Your task to perform on an android device: toggle data saver in the chrome app Image 0: 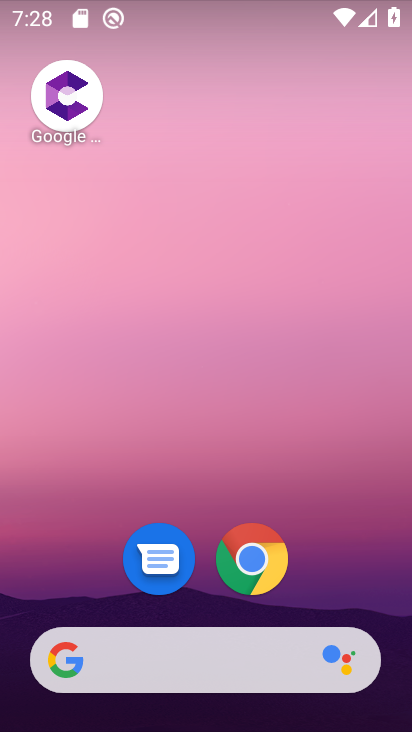
Step 0: click (259, 567)
Your task to perform on an android device: toggle data saver in the chrome app Image 1: 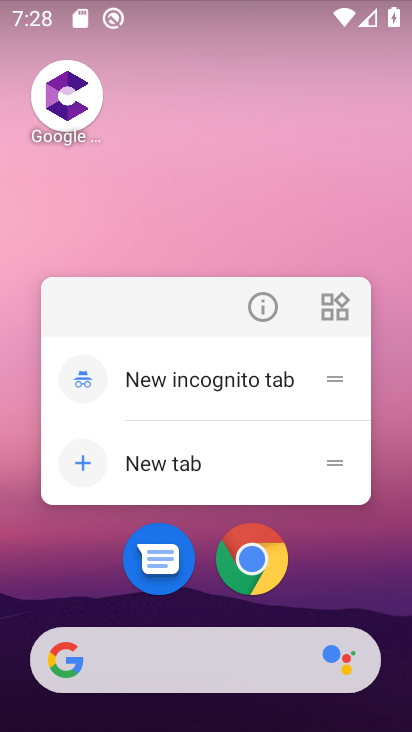
Step 1: click (247, 562)
Your task to perform on an android device: toggle data saver in the chrome app Image 2: 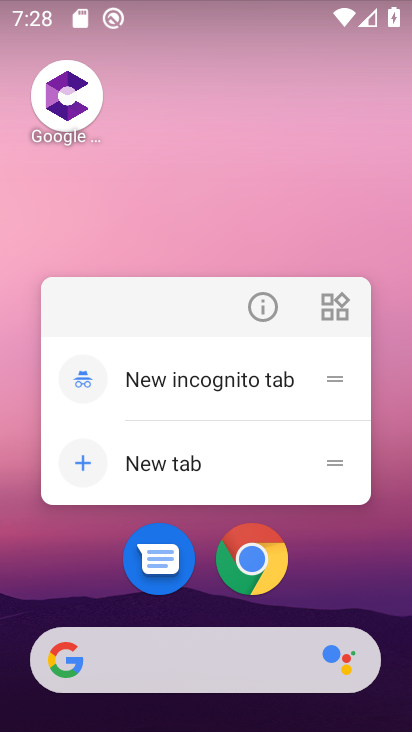
Step 2: click (256, 566)
Your task to perform on an android device: toggle data saver in the chrome app Image 3: 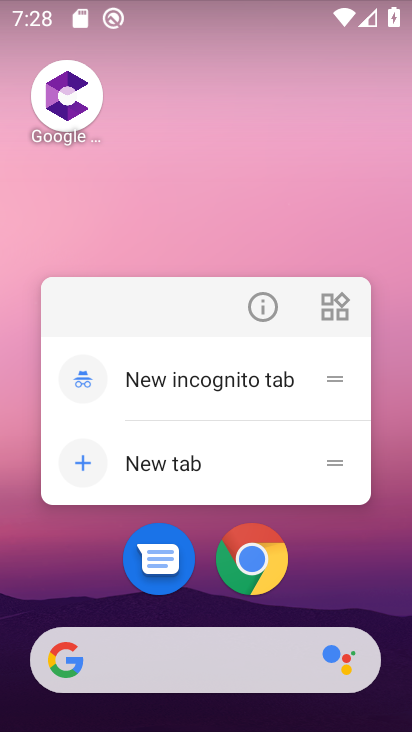
Step 3: click (252, 571)
Your task to perform on an android device: toggle data saver in the chrome app Image 4: 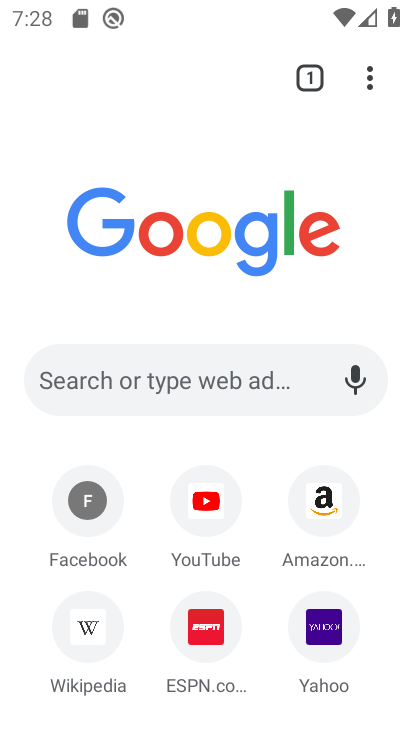
Step 4: drag from (367, 80) to (210, 639)
Your task to perform on an android device: toggle data saver in the chrome app Image 5: 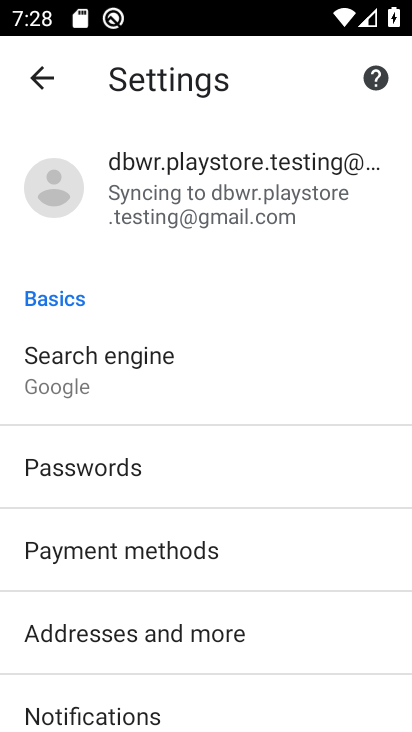
Step 5: drag from (248, 673) to (358, 166)
Your task to perform on an android device: toggle data saver in the chrome app Image 6: 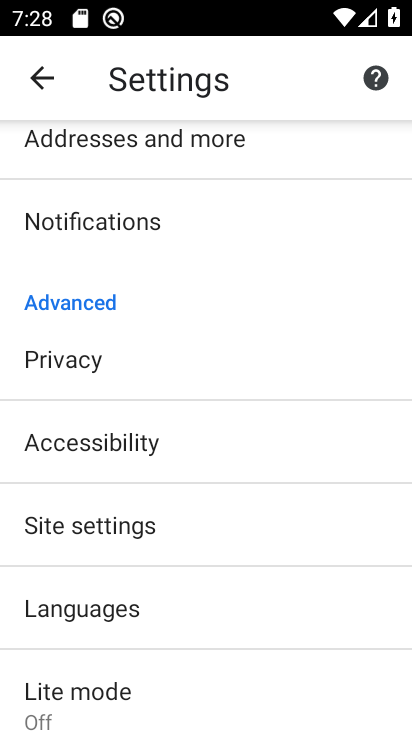
Step 6: drag from (209, 607) to (290, 319)
Your task to perform on an android device: toggle data saver in the chrome app Image 7: 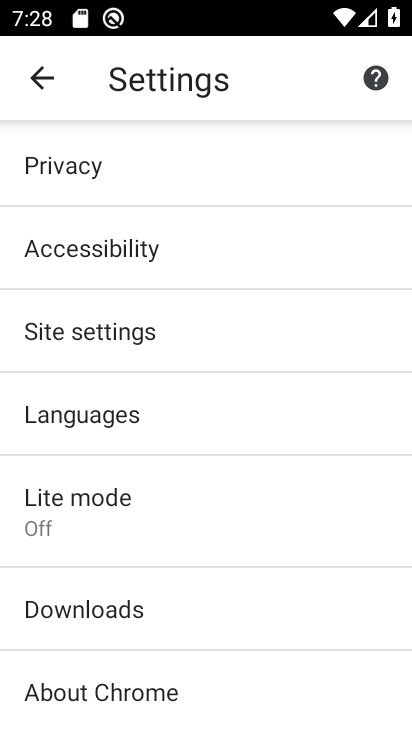
Step 7: click (105, 507)
Your task to perform on an android device: toggle data saver in the chrome app Image 8: 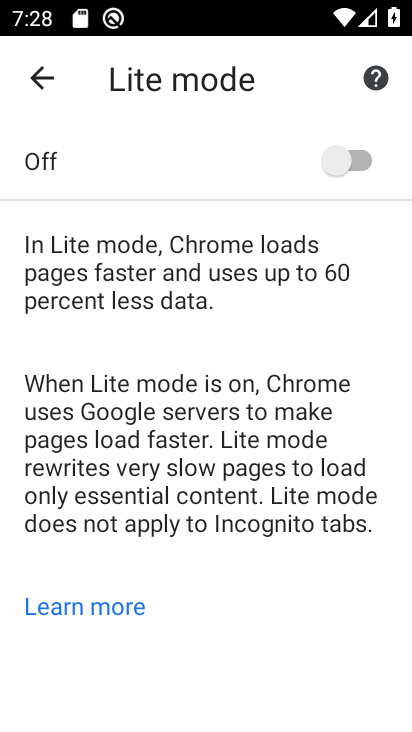
Step 8: click (363, 162)
Your task to perform on an android device: toggle data saver in the chrome app Image 9: 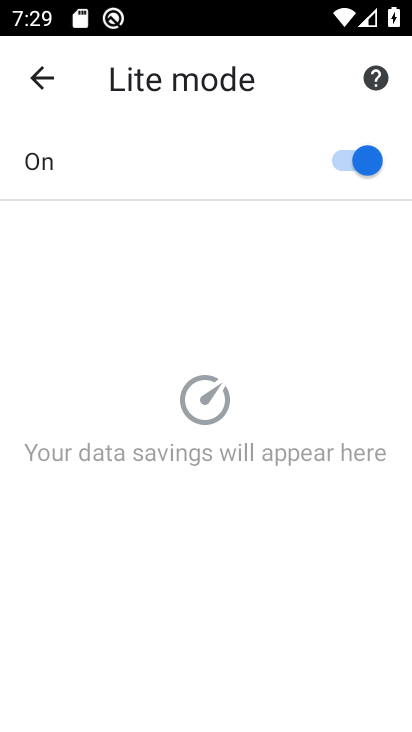
Step 9: task complete